Your task to perform on an android device: Open Google Chrome and open the bookmarks view Image 0: 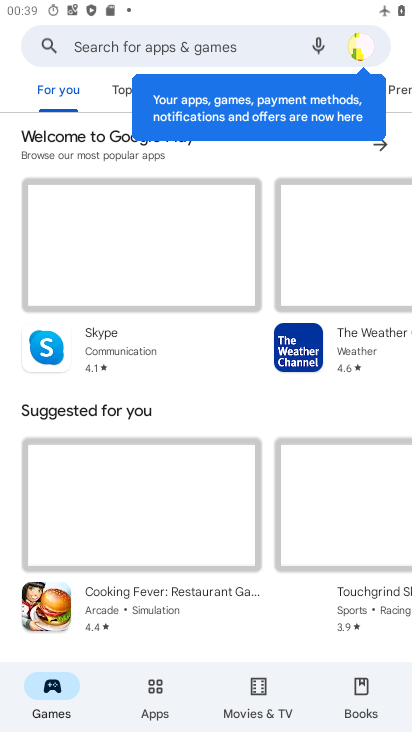
Step 0: press home button
Your task to perform on an android device: Open Google Chrome and open the bookmarks view Image 1: 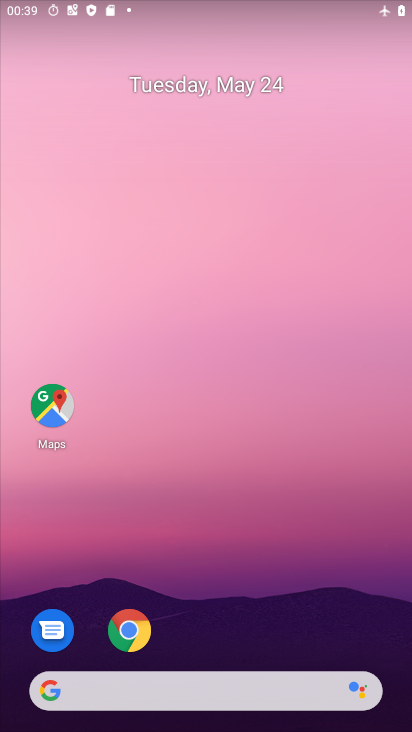
Step 1: click (203, 635)
Your task to perform on an android device: Open Google Chrome and open the bookmarks view Image 2: 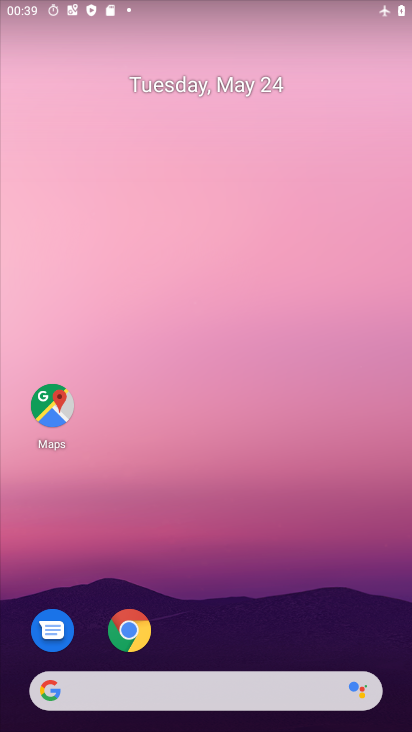
Step 2: click (131, 637)
Your task to perform on an android device: Open Google Chrome and open the bookmarks view Image 3: 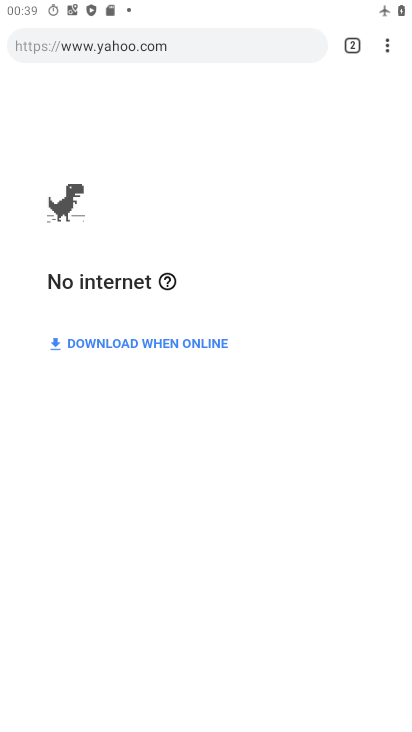
Step 3: click (385, 44)
Your task to perform on an android device: Open Google Chrome and open the bookmarks view Image 4: 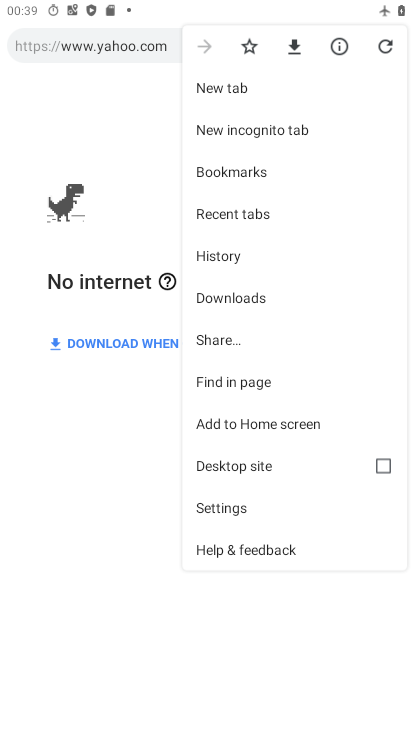
Step 4: click (221, 177)
Your task to perform on an android device: Open Google Chrome and open the bookmarks view Image 5: 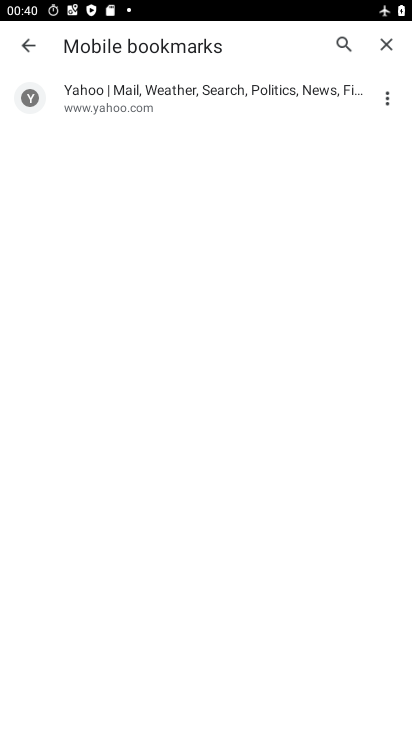
Step 5: task complete